Your task to perform on an android device: Go to privacy settings Image 0: 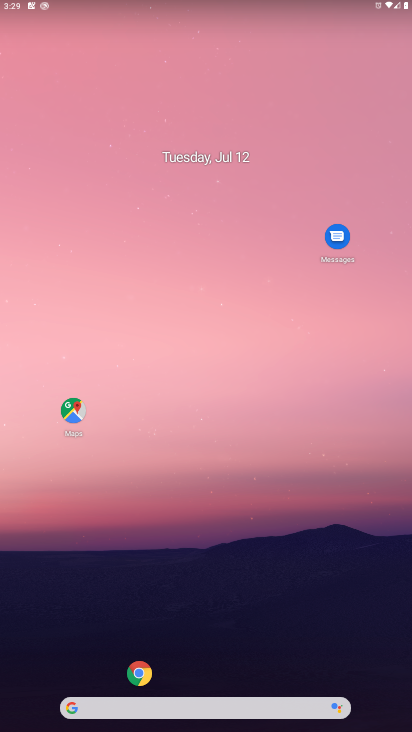
Step 0: drag from (69, 630) to (361, 99)
Your task to perform on an android device: Go to privacy settings Image 1: 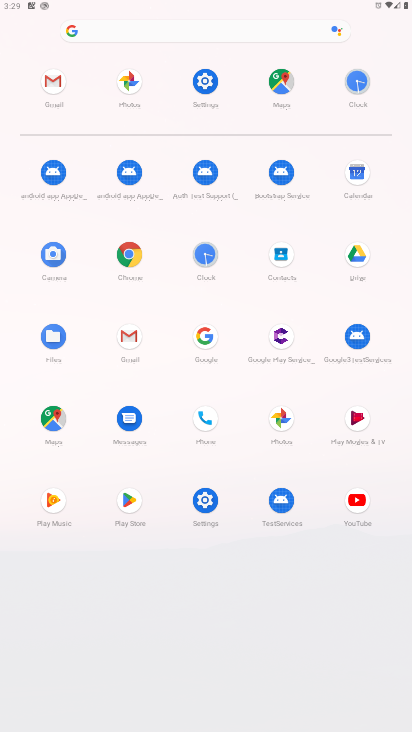
Step 1: click (209, 499)
Your task to perform on an android device: Go to privacy settings Image 2: 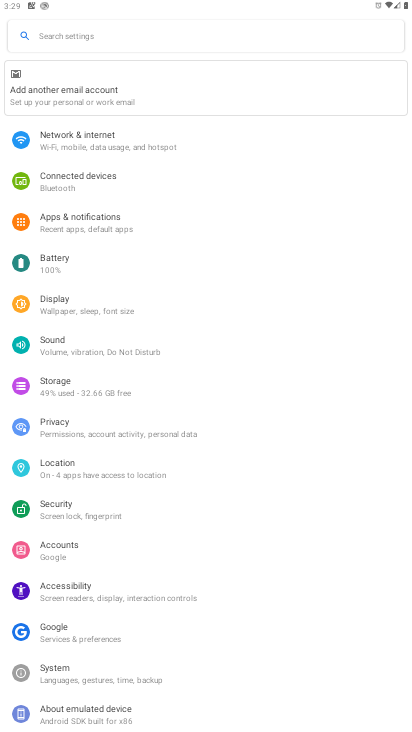
Step 2: click (84, 408)
Your task to perform on an android device: Go to privacy settings Image 3: 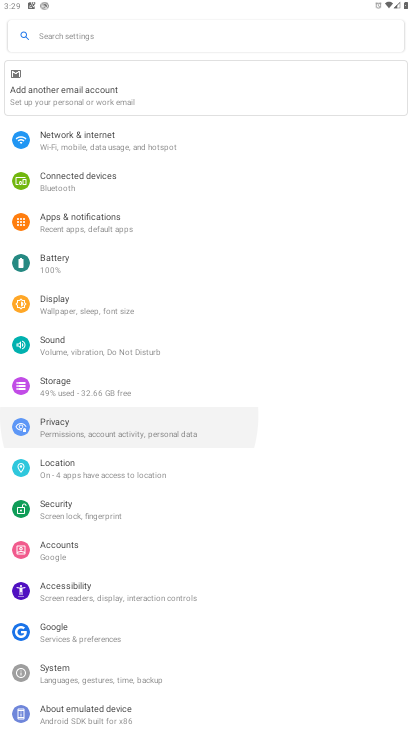
Step 3: click (85, 422)
Your task to perform on an android device: Go to privacy settings Image 4: 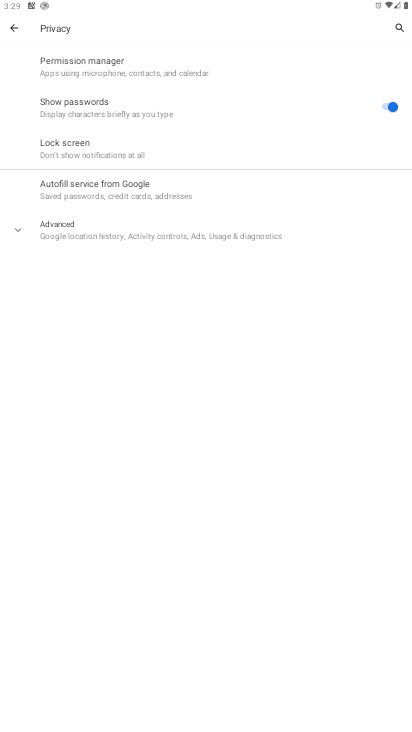
Step 4: task complete